Your task to perform on an android device: Search for seafood restaurants on Google Maps Image 0: 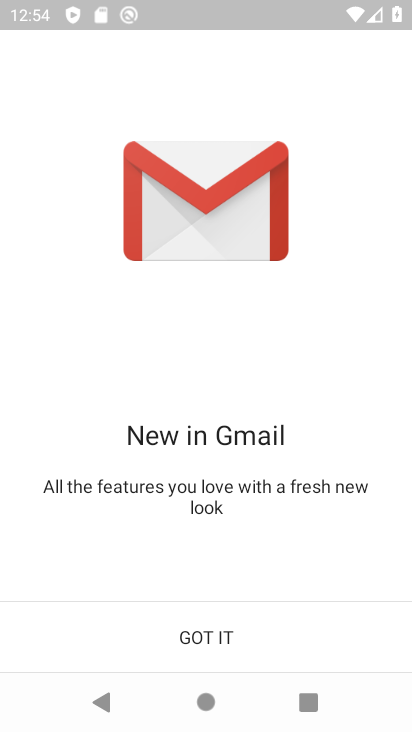
Step 0: press home button
Your task to perform on an android device: Search for seafood restaurants on Google Maps Image 1: 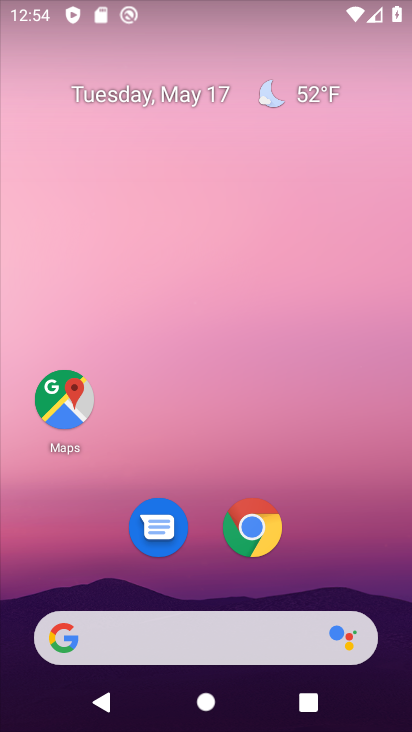
Step 1: click (83, 386)
Your task to perform on an android device: Search for seafood restaurants on Google Maps Image 2: 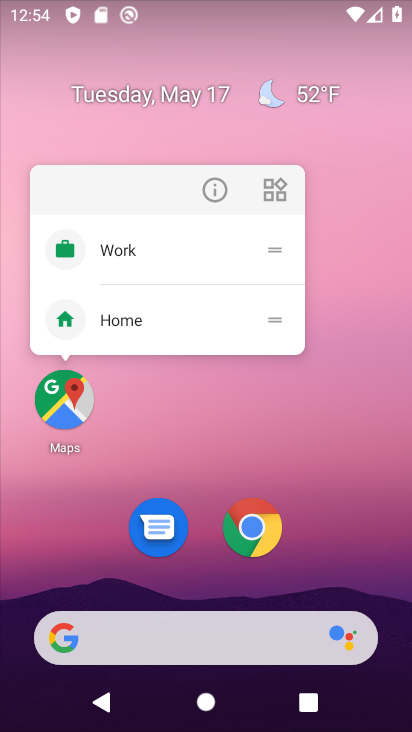
Step 2: click (81, 407)
Your task to perform on an android device: Search for seafood restaurants on Google Maps Image 3: 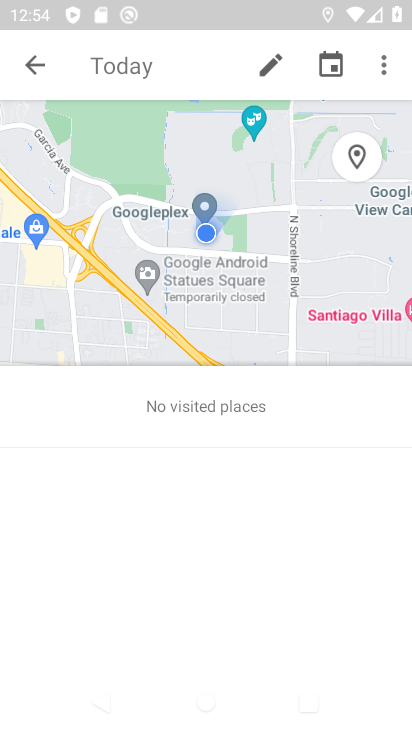
Step 3: click (18, 63)
Your task to perform on an android device: Search for seafood restaurants on Google Maps Image 4: 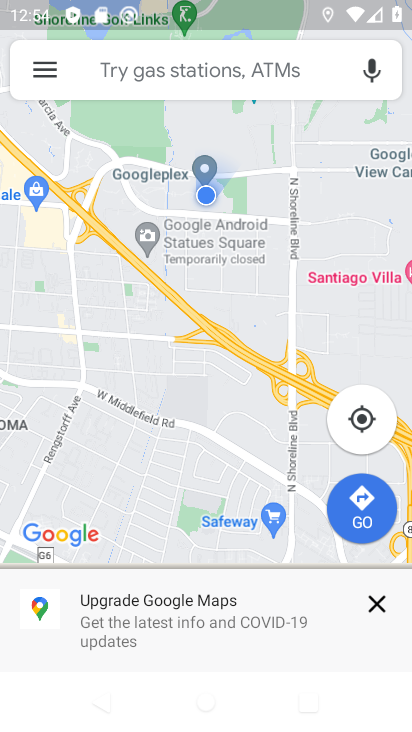
Step 4: click (200, 64)
Your task to perform on an android device: Search for seafood restaurants on Google Maps Image 5: 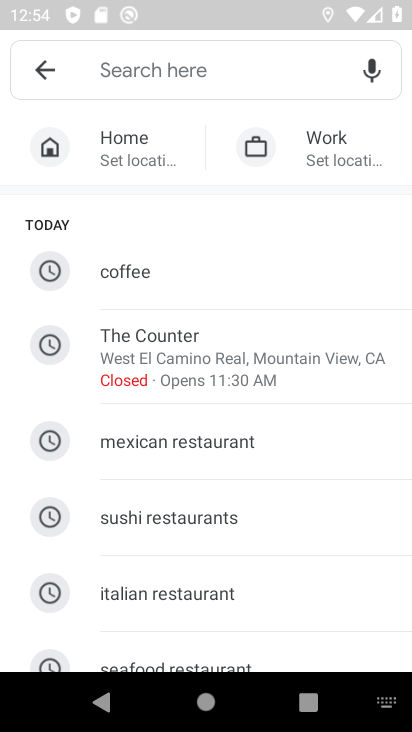
Step 5: type "seafood restaurants"
Your task to perform on an android device: Search for seafood restaurants on Google Maps Image 6: 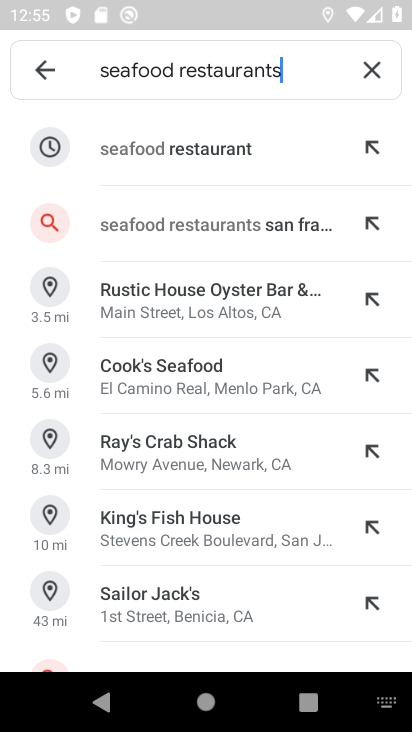
Step 6: click (212, 167)
Your task to perform on an android device: Search for seafood restaurants on Google Maps Image 7: 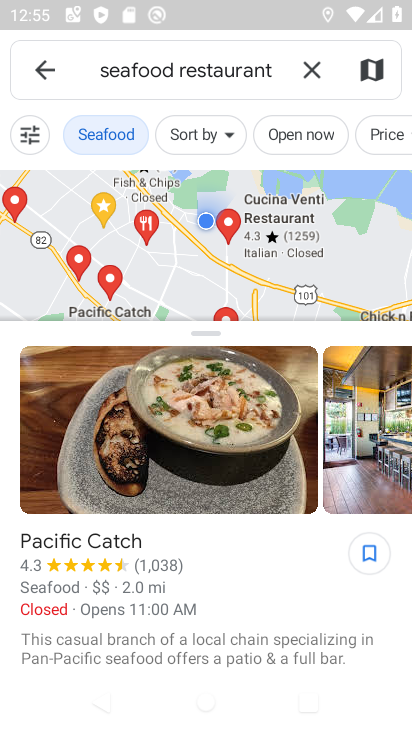
Step 7: task complete